Your task to perform on an android device: Search for sushi restaurants on Maps Image 0: 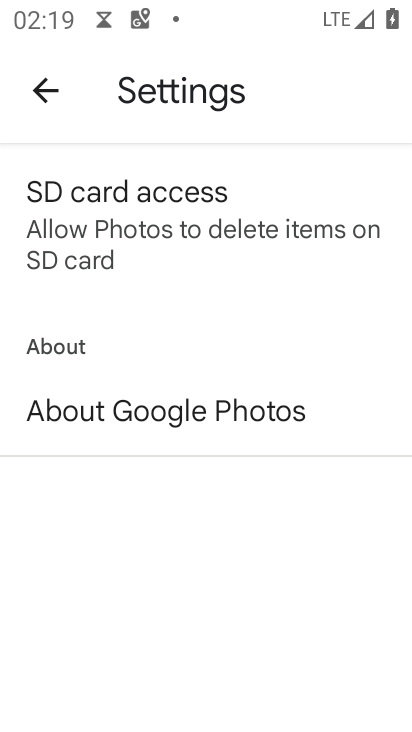
Step 0: press home button
Your task to perform on an android device: Search for sushi restaurants on Maps Image 1: 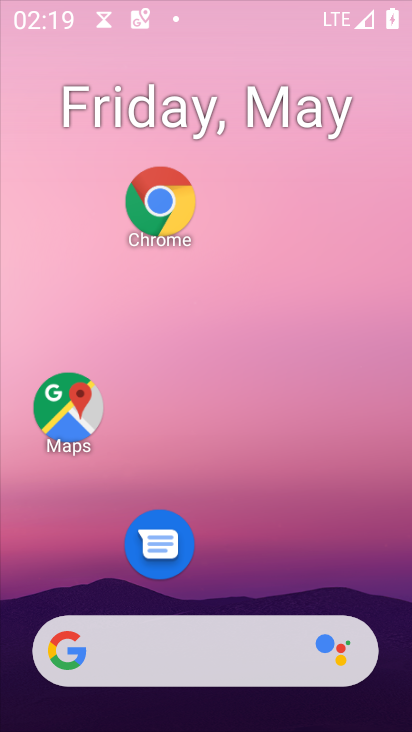
Step 1: drag from (278, 671) to (272, 248)
Your task to perform on an android device: Search for sushi restaurants on Maps Image 2: 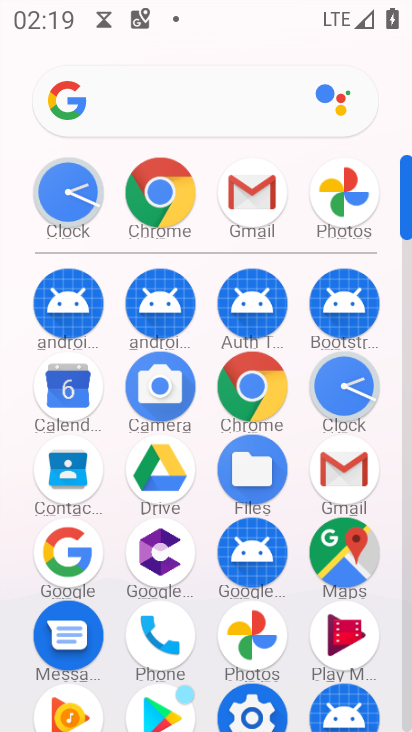
Step 2: click (360, 563)
Your task to perform on an android device: Search for sushi restaurants on Maps Image 3: 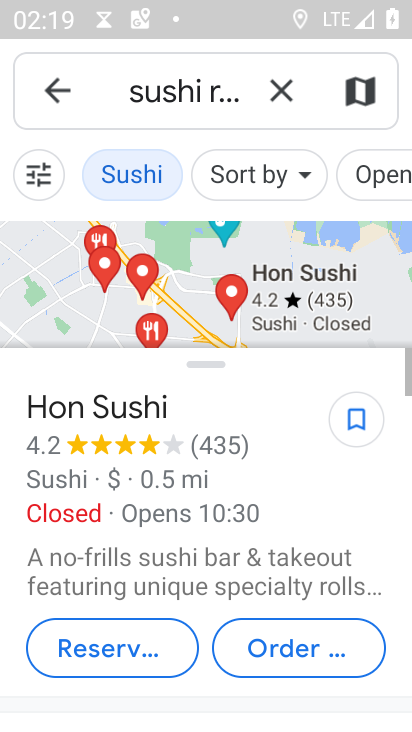
Step 3: task complete